Your task to perform on an android device: Do I have any events tomorrow? Image 0: 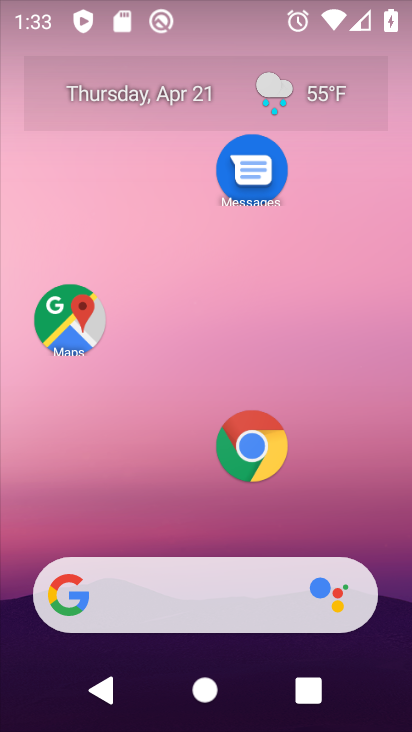
Step 0: drag from (181, 511) to (193, 0)
Your task to perform on an android device: Do I have any events tomorrow? Image 1: 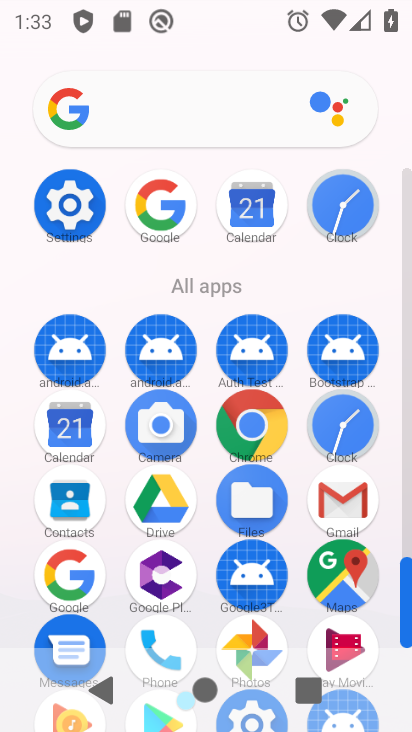
Step 1: click (71, 429)
Your task to perform on an android device: Do I have any events tomorrow? Image 2: 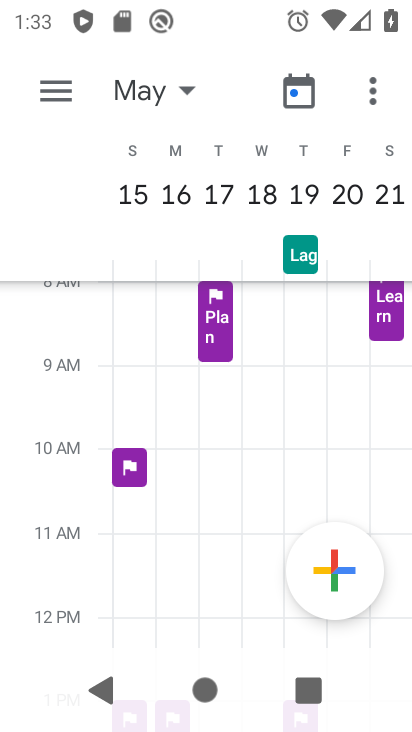
Step 2: click (302, 89)
Your task to perform on an android device: Do I have any events tomorrow? Image 3: 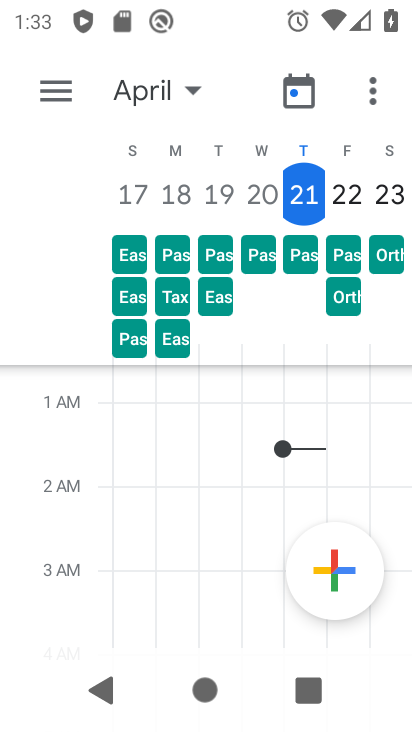
Step 3: click (190, 84)
Your task to perform on an android device: Do I have any events tomorrow? Image 4: 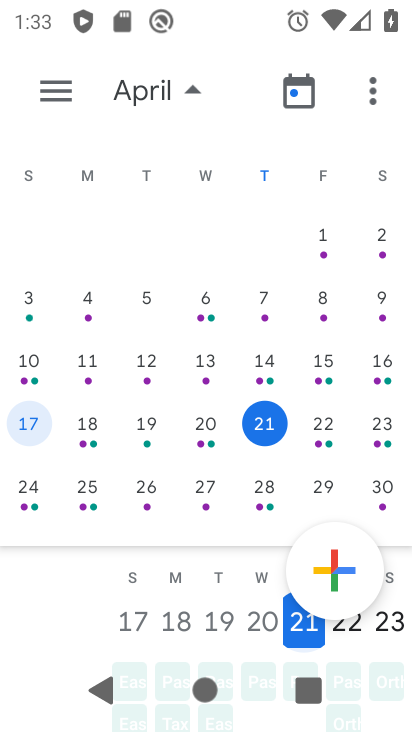
Step 4: click (324, 421)
Your task to perform on an android device: Do I have any events tomorrow? Image 5: 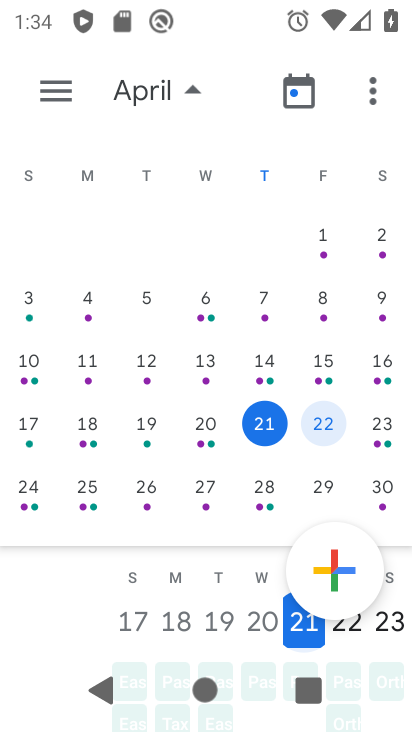
Step 5: click (54, 93)
Your task to perform on an android device: Do I have any events tomorrow? Image 6: 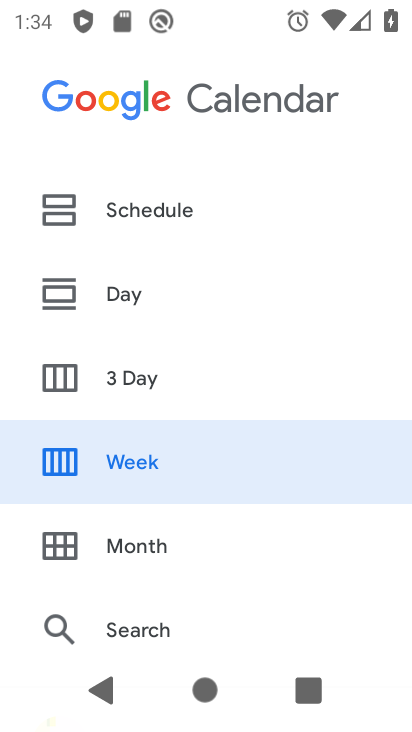
Step 6: click (69, 208)
Your task to perform on an android device: Do I have any events tomorrow? Image 7: 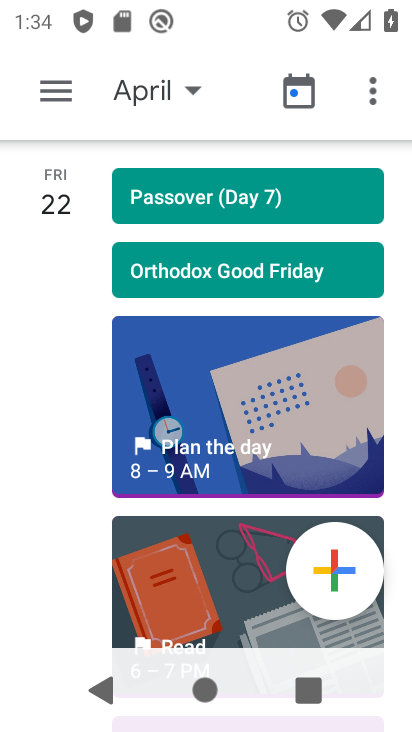
Step 7: task complete